Your task to perform on an android device: change the clock display to show seconds Image 0: 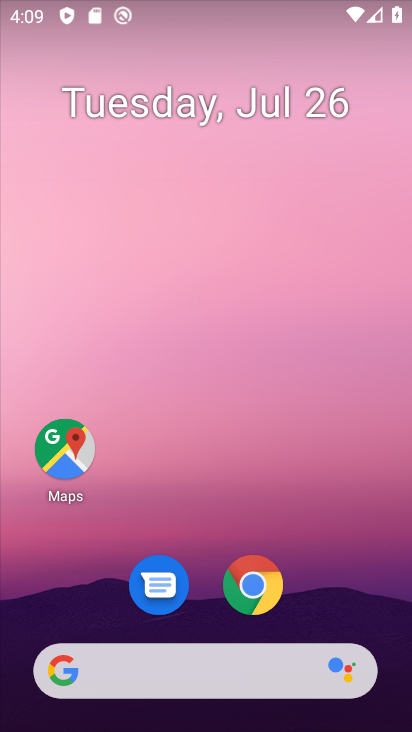
Step 0: drag from (341, 589) to (323, 14)
Your task to perform on an android device: change the clock display to show seconds Image 1: 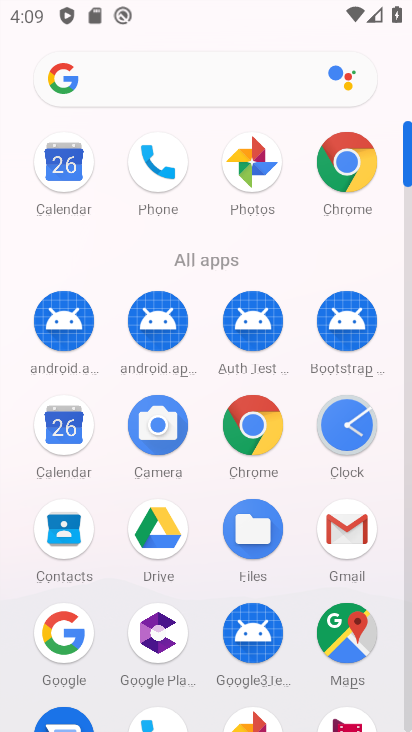
Step 1: click (356, 424)
Your task to perform on an android device: change the clock display to show seconds Image 2: 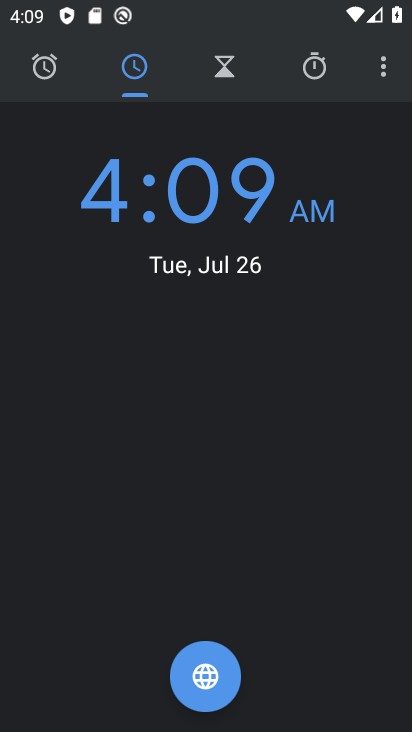
Step 2: click (386, 72)
Your task to perform on an android device: change the clock display to show seconds Image 3: 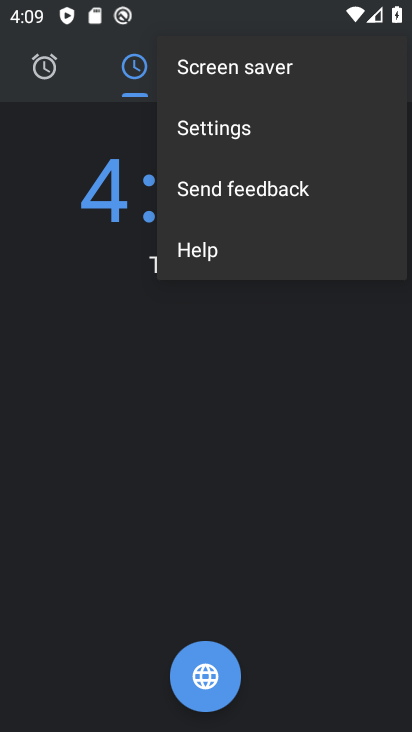
Step 3: click (292, 139)
Your task to perform on an android device: change the clock display to show seconds Image 4: 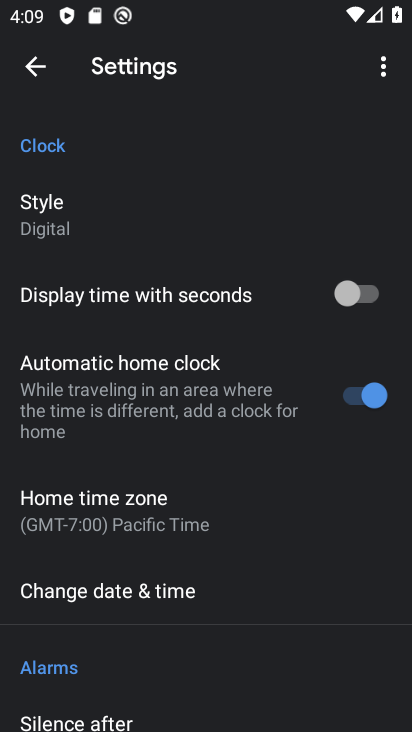
Step 4: click (370, 294)
Your task to perform on an android device: change the clock display to show seconds Image 5: 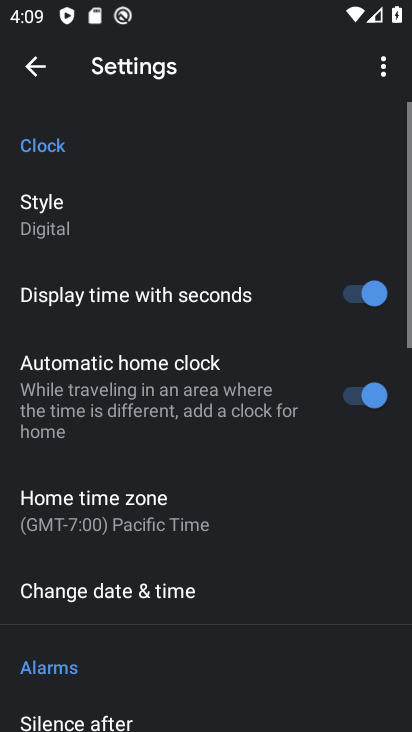
Step 5: click (37, 66)
Your task to perform on an android device: change the clock display to show seconds Image 6: 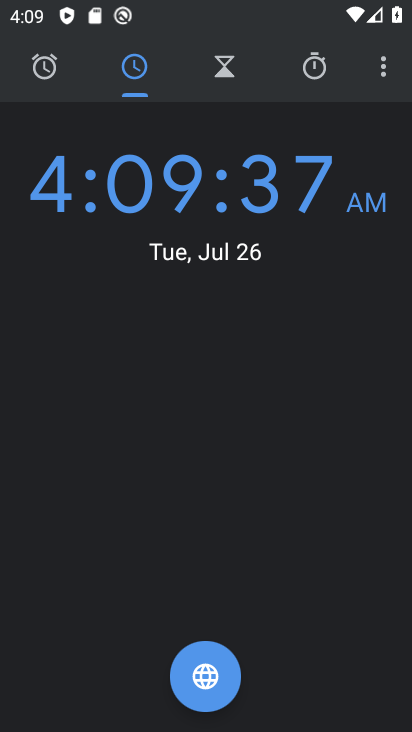
Step 6: task complete